Your task to perform on an android device: Open Chrome and go to settings Image 0: 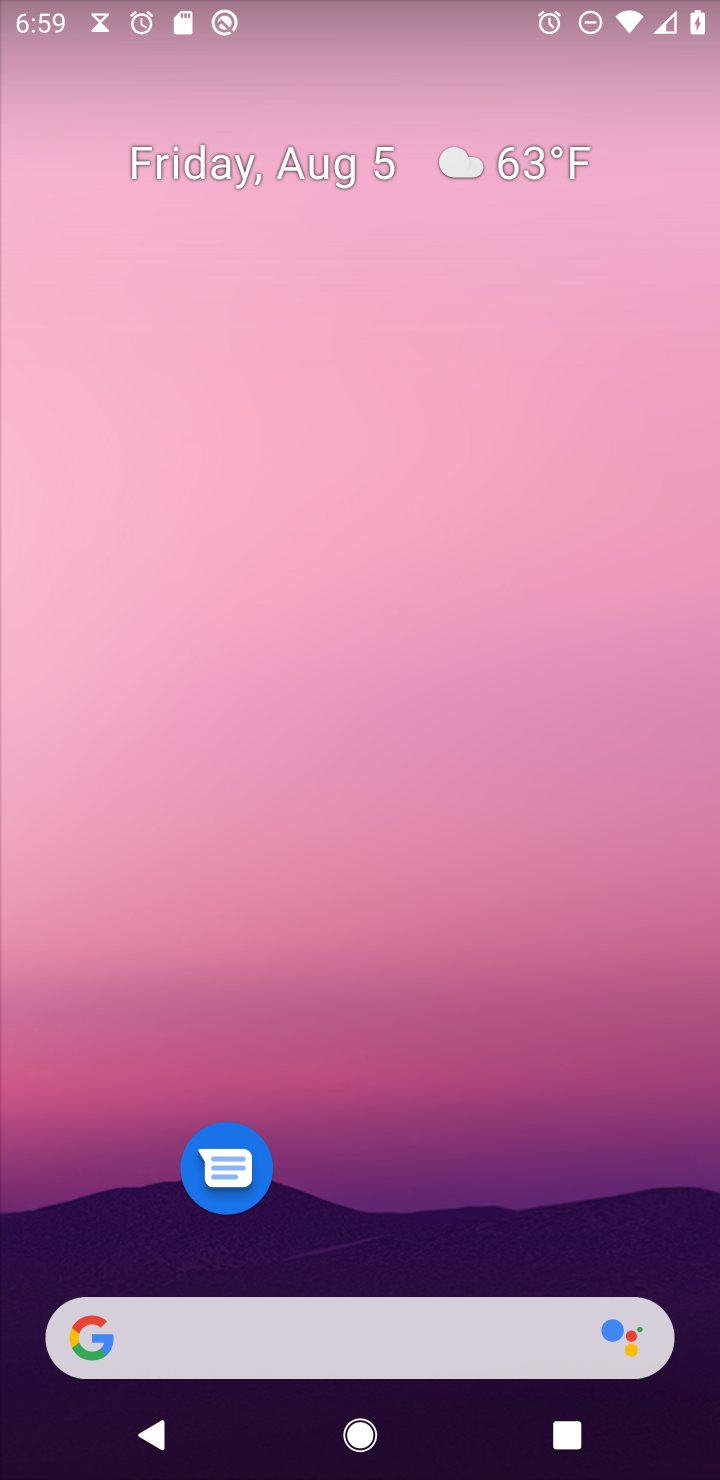
Step 0: press home button
Your task to perform on an android device: Open Chrome and go to settings Image 1: 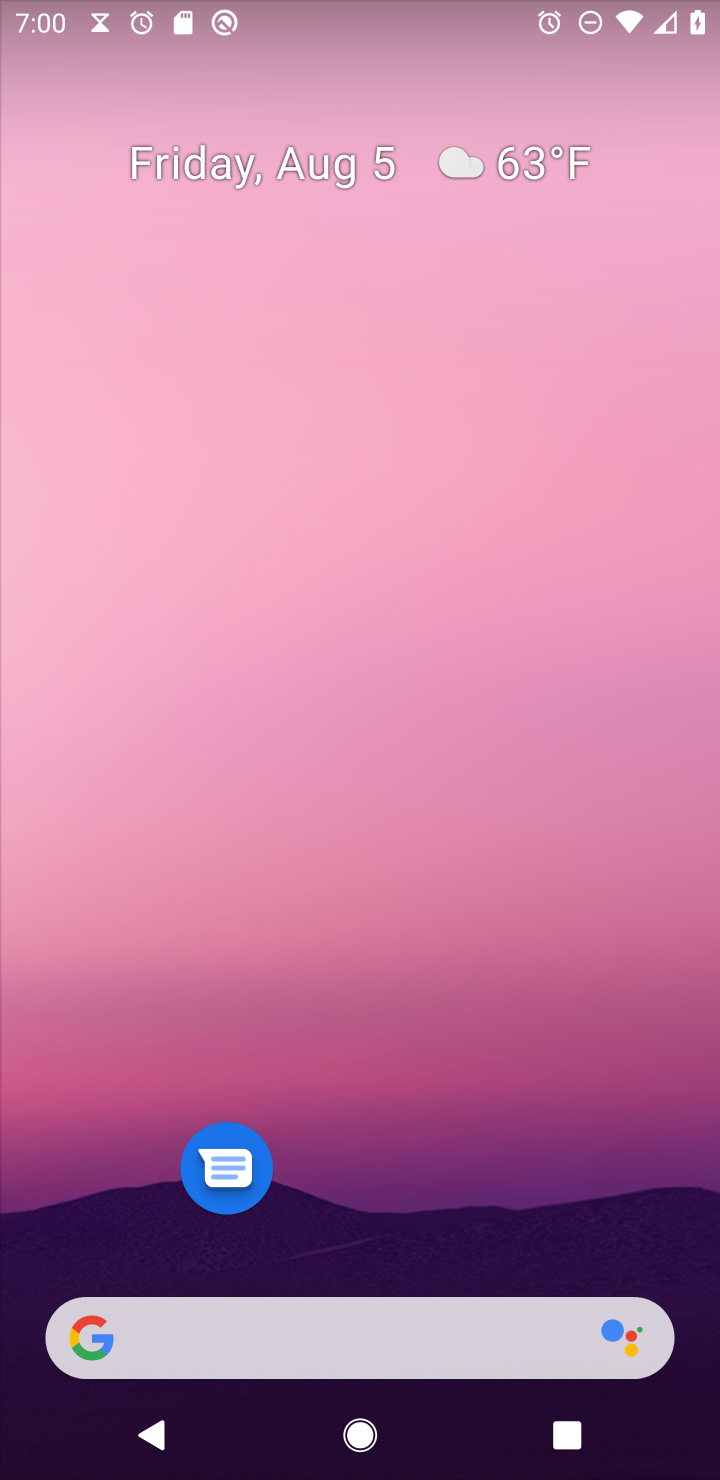
Step 1: drag from (420, 1225) to (390, 240)
Your task to perform on an android device: Open Chrome and go to settings Image 2: 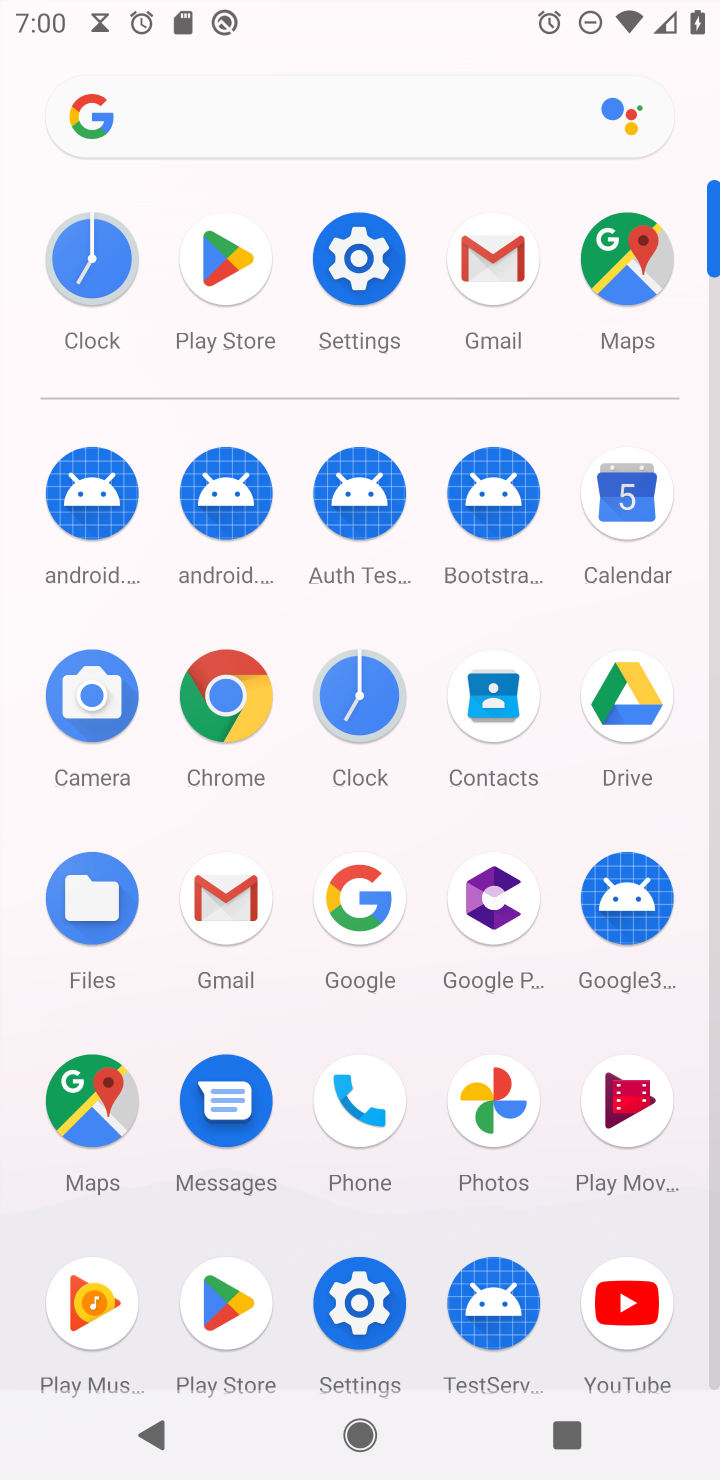
Step 2: click (233, 713)
Your task to perform on an android device: Open Chrome and go to settings Image 3: 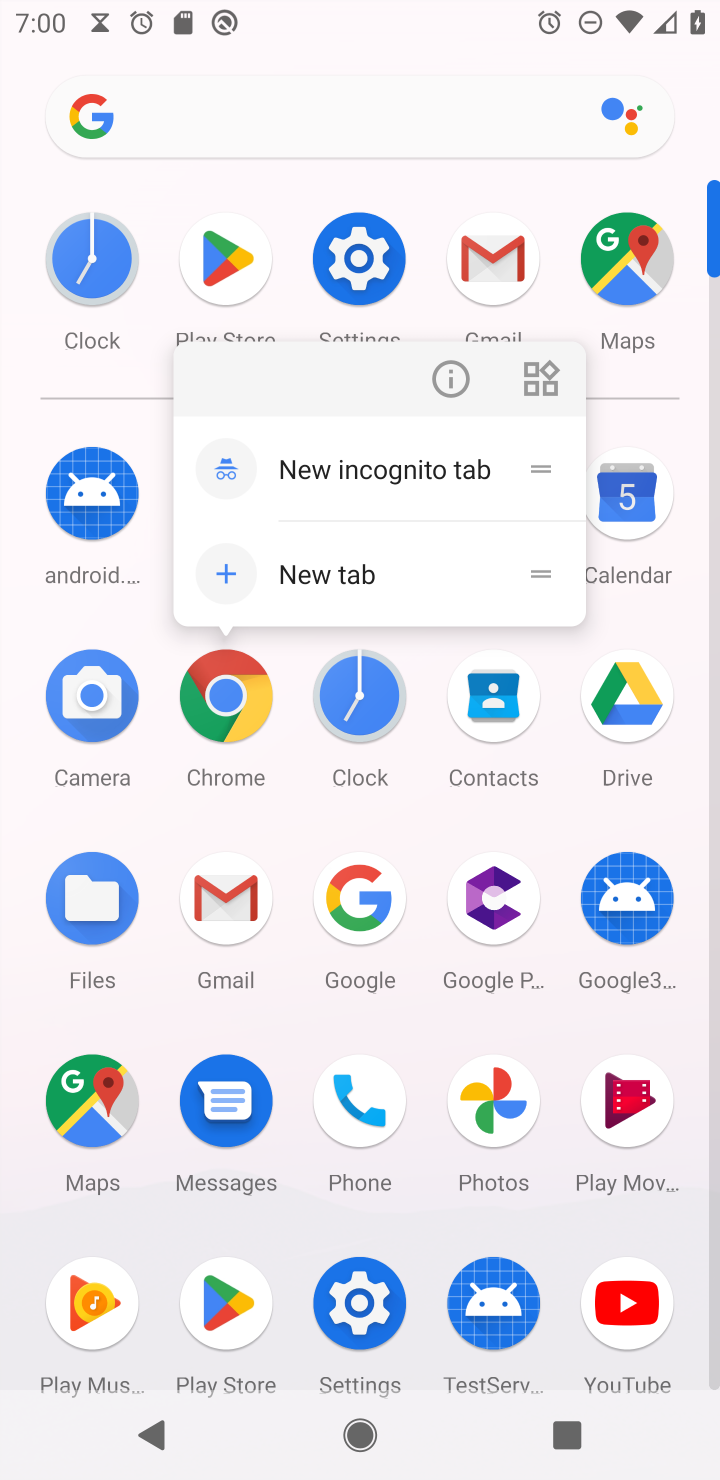
Step 3: click (219, 711)
Your task to perform on an android device: Open Chrome and go to settings Image 4: 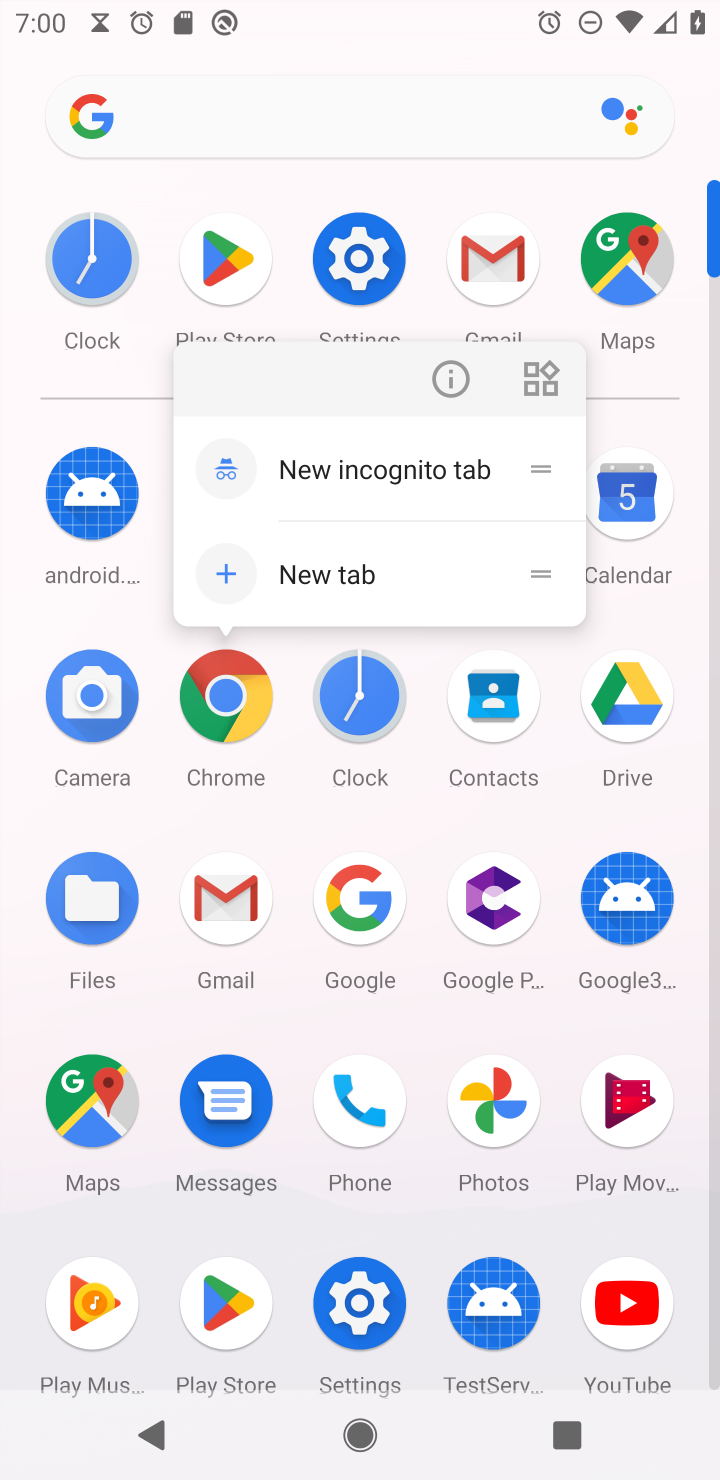
Step 4: click (282, 811)
Your task to perform on an android device: Open Chrome and go to settings Image 5: 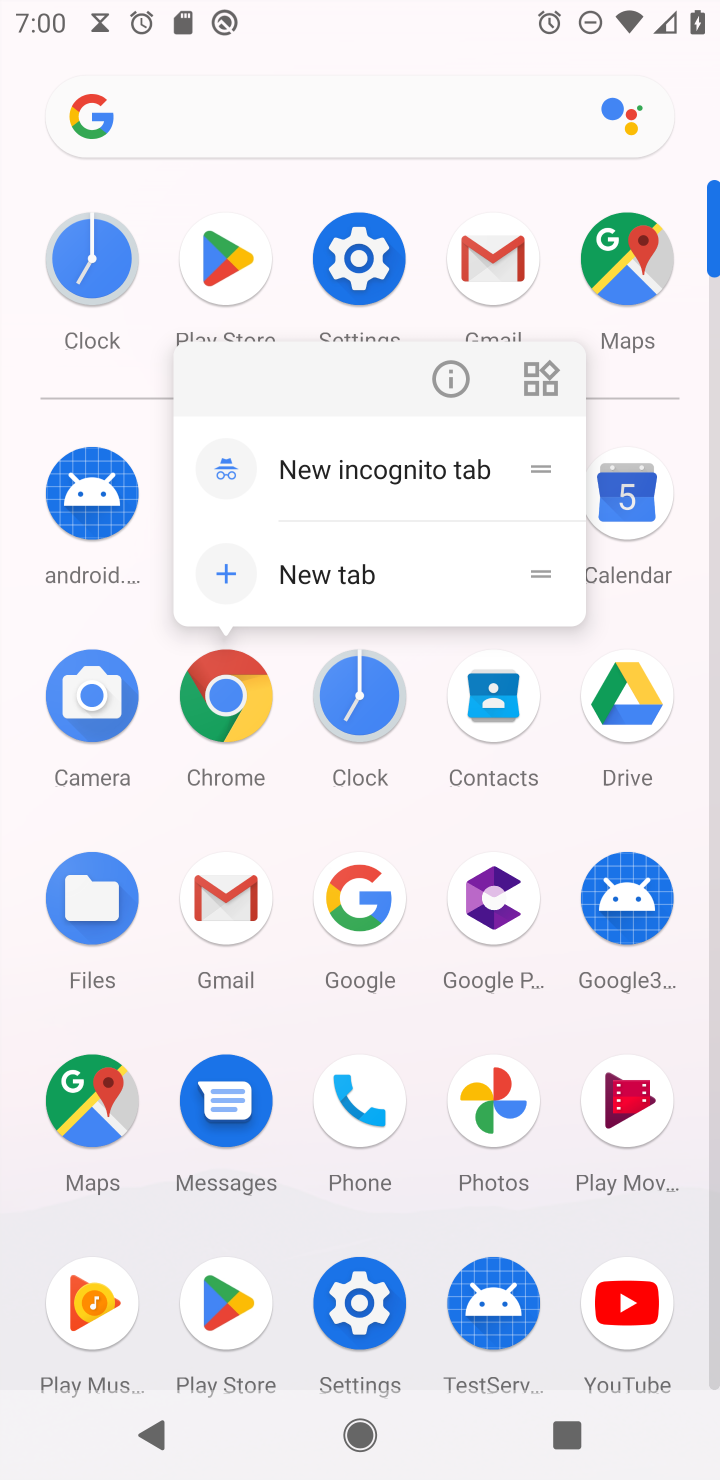
Step 5: click (219, 675)
Your task to perform on an android device: Open Chrome and go to settings Image 6: 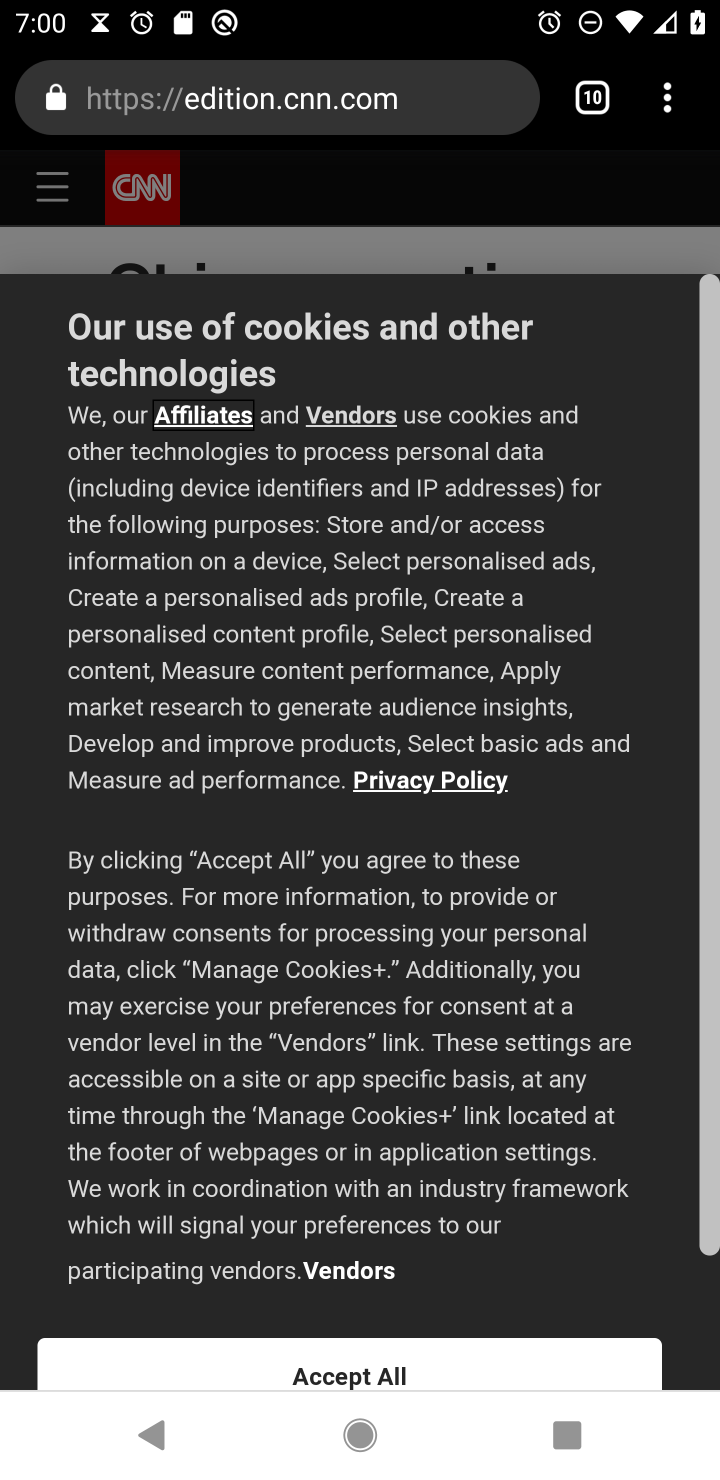
Step 6: task complete